Your task to perform on an android device: delete browsing data in the chrome app Image 0: 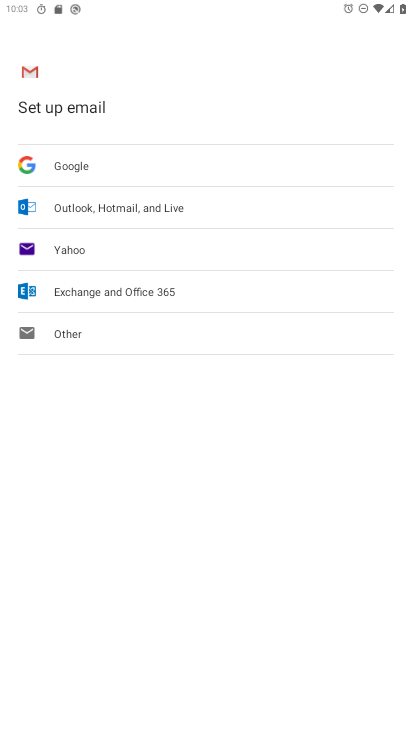
Step 0: press home button
Your task to perform on an android device: delete browsing data in the chrome app Image 1: 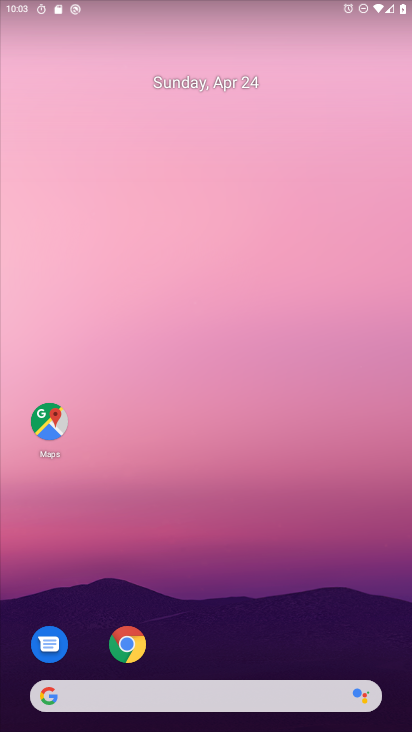
Step 1: drag from (240, 669) to (279, 64)
Your task to perform on an android device: delete browsing data in the chrome app Image 2: 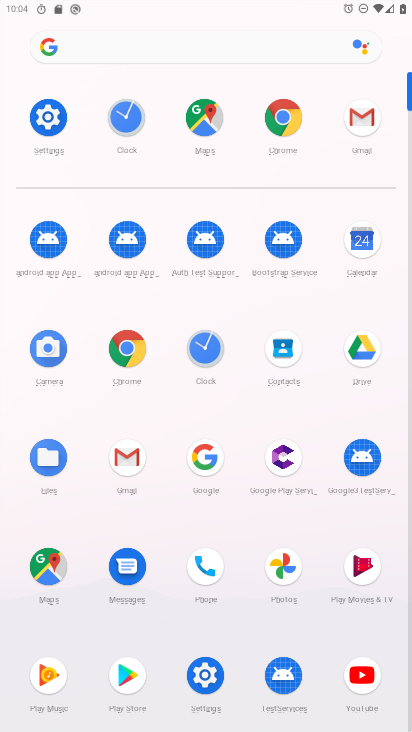
Step 2: click (136, 352)
Your task to perform on an android device: delete browsing data in the chrome app Image 3: 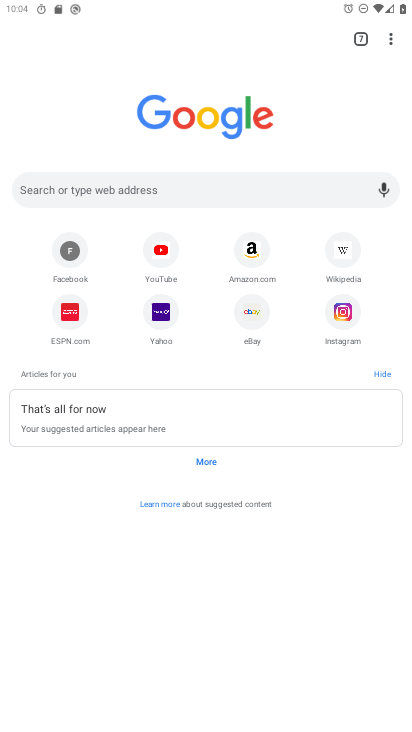
Step 3: drag from (394, 43) to (241, 270)
Your task to perform on an android device: delete browsing data in the chrome app Image 4: 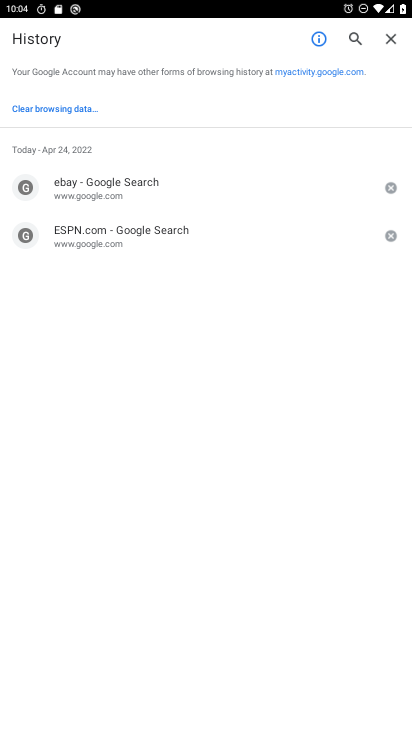
Step 4: click (48, 109)
Your task to perform on an android device: delete browsing data in the chrome app Image 5: 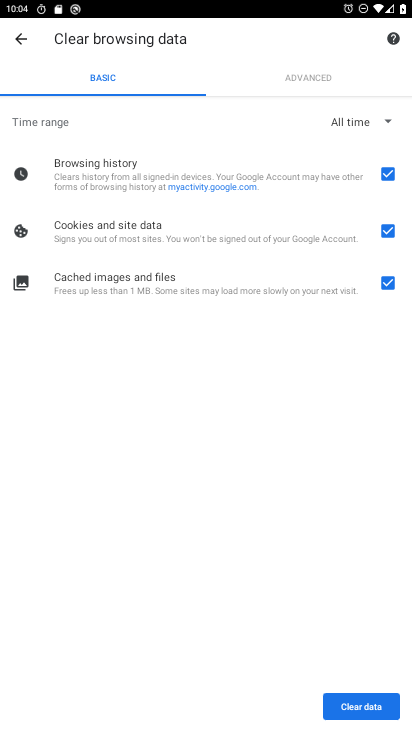
Step 5: click (355, 694)
Your task to perform on an android device: delete browsing data in the chrome app Image 6: 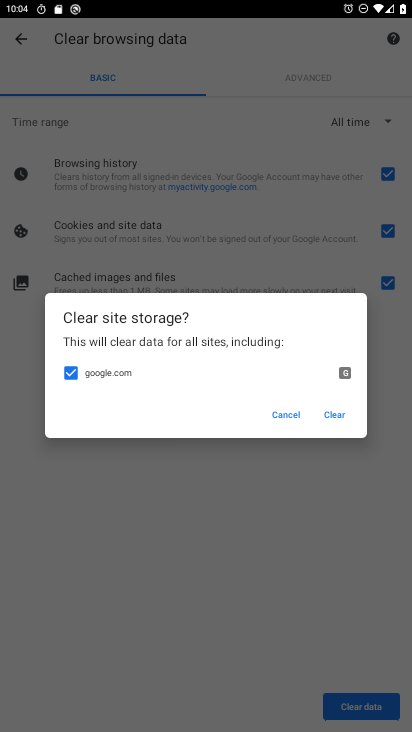
Step 6: click (331, 418)
Your task to perform on an android device: delete browsing data in the chrome app Image 7: 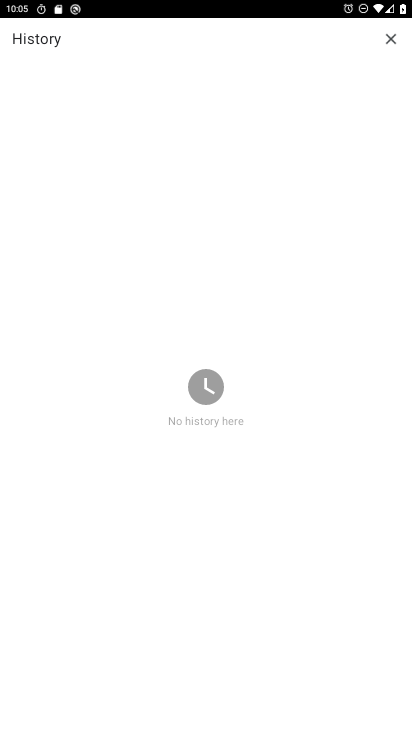
Step 7: task complete